Your task to perform on an android device: When is my next appointment? Image 0: 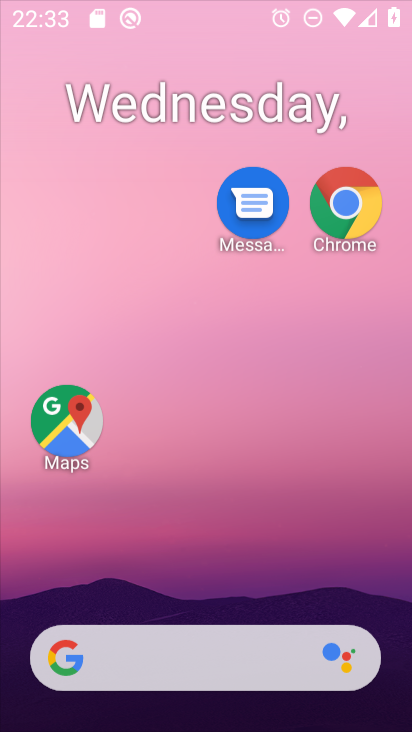
Step 0: click (318, 214)
Your task to perform on an android device: When is my next appointment? Image 1: 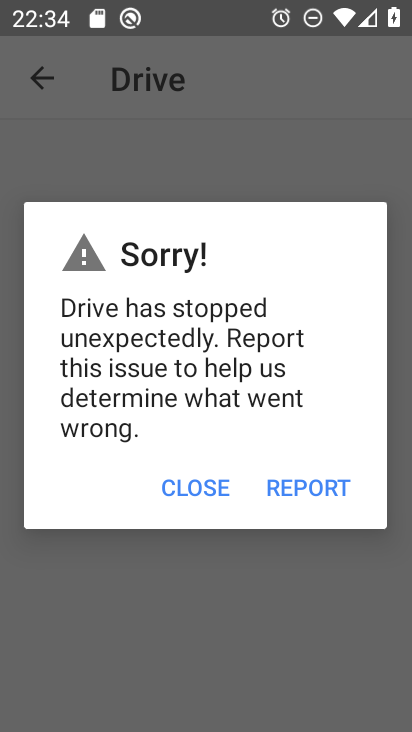
Step 1: press home button
Your task to perform on an android device: When is my next appointment? Image 2: 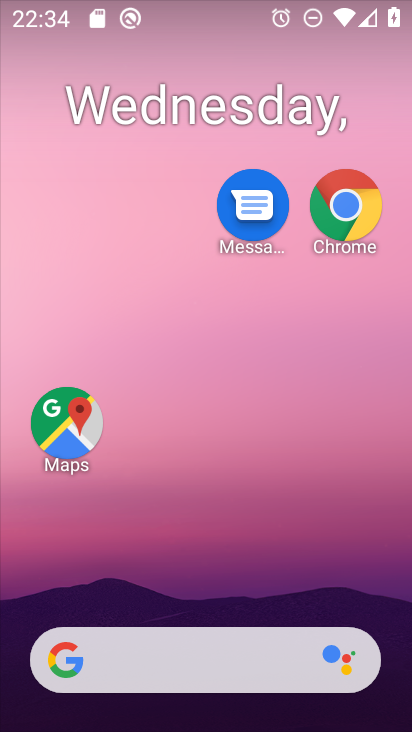
Step 2: drag from (209, 552) to (269, 180)
Your task to perform on an android device: When is my next appointment? Image 3: 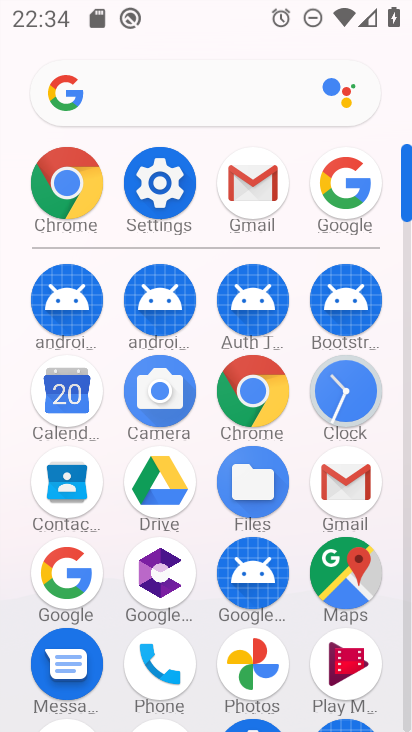
Step 3: click (53, 398)
Your task to perform on an android device: When is my next appointment? Image 4: 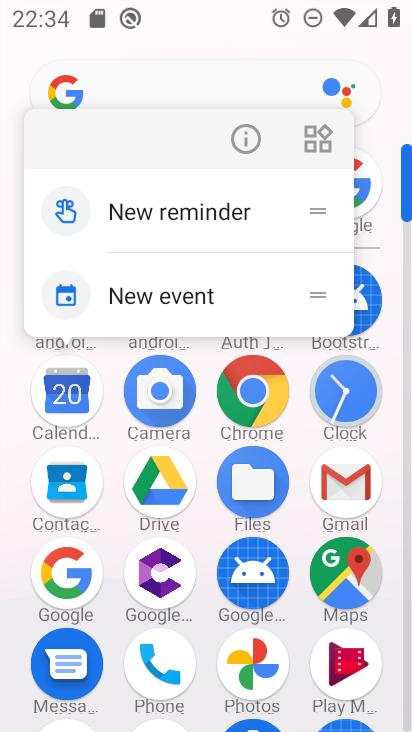
Step 4: click (239, 136)
Your task to perform on an android device: When is my next appointment? Image 5: 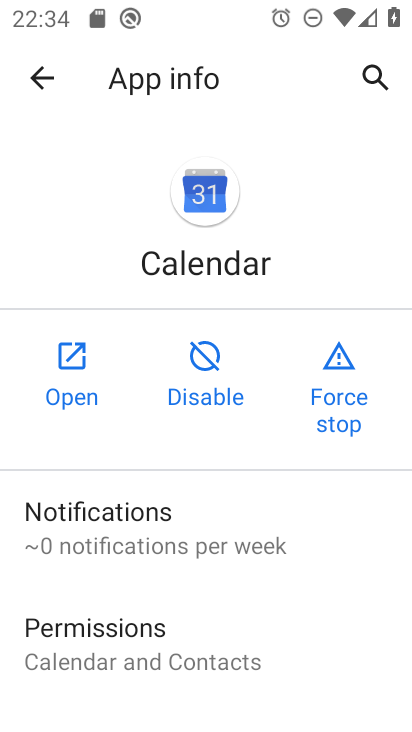
Step 5: click (85, 362)
Your task to perform on an android device: When is my next appointment? Image 6: 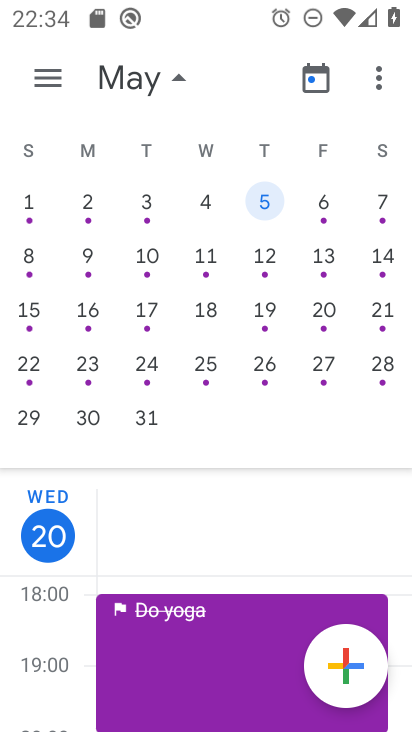
Step 6: task complete